Your task to perform on an android device: turn off improve location accuracy Image 0: 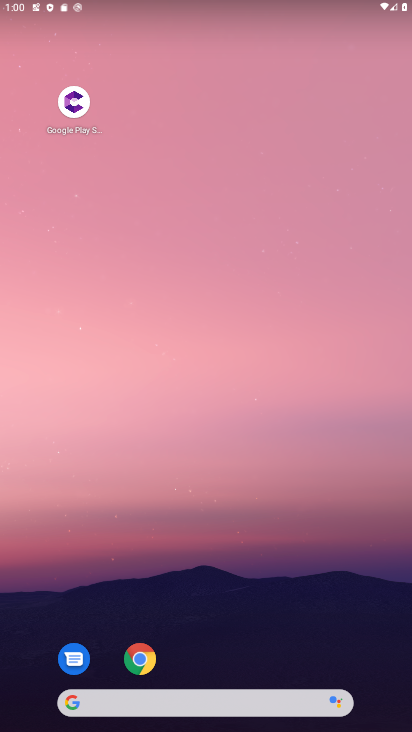
Step 0: press home button
Your task to perform on an android device: turn off improve location accuracy Image 1: 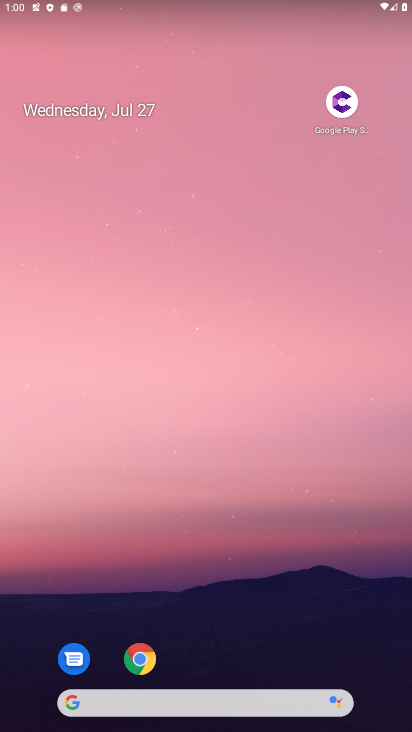
Step 1: drag from (231, 656) to (209, 175)
Your task to perform on an android device: turn off improve location accuracy Image 2: 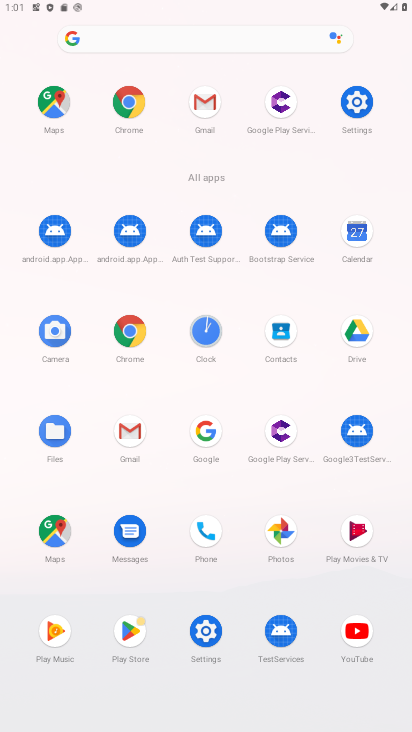
Step 2: click (189, 624)
Your task to perform on an android device: turn off improve location accuracy Image 3: 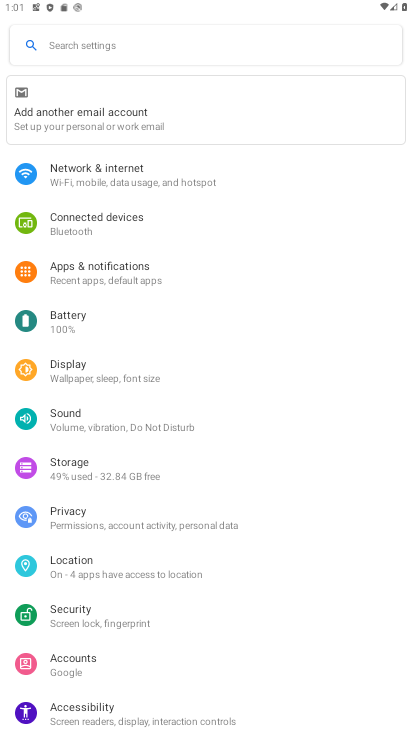
Step 3: click (62, 560)
Your task to perform on an android device: turn off improve location accuracy Image 4: 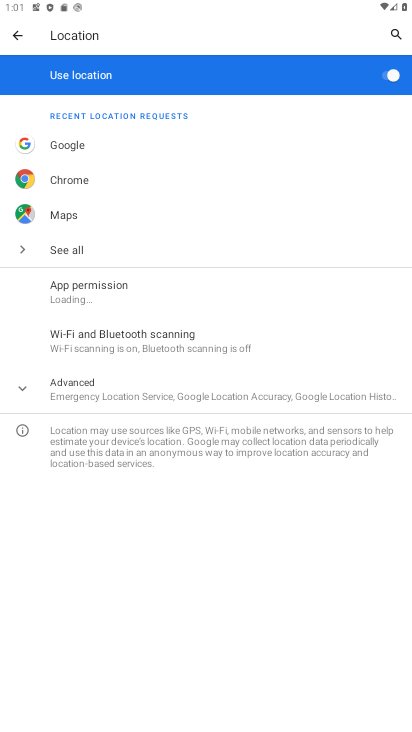
Step 4: click (230, 385)
Your task to perform on an android device: turn off improve location accuracy Image 5: 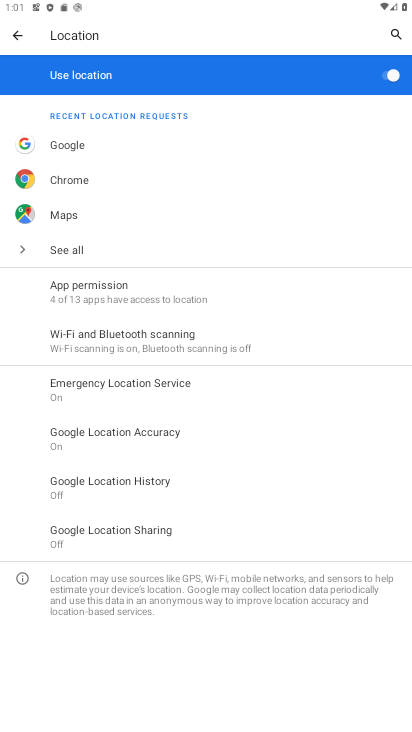
Step 5: click (107, 426)
Your task to perform on an android device: turn off improve location accuracy Image 6: 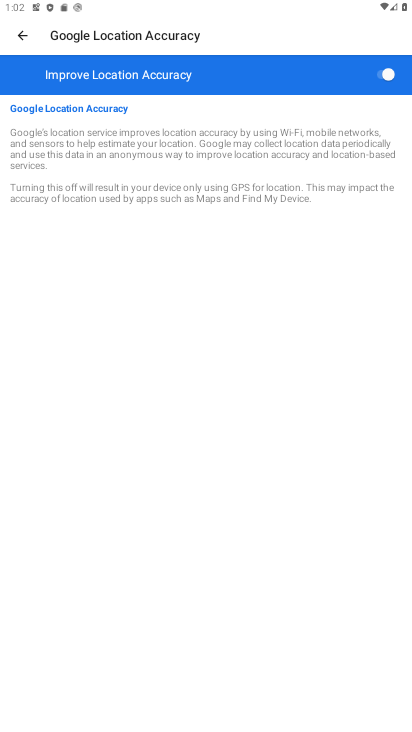
Step 6: click (272, 74)
Your task to perform on an android device: turn off improve location accuracy Image 7: 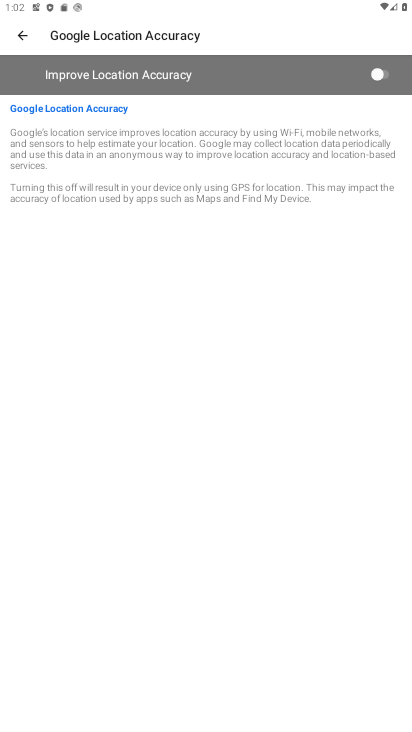
Step 7: task complete